Your task to perform on an android device: find which apps use the phone's location Image 0: 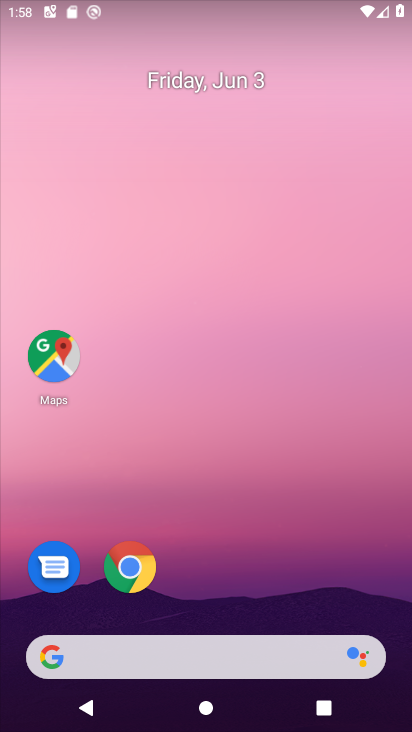
Step 0: drag from (238, 510) to (269, 244)
Your task to perform on an android device: find which apps use the phone's location Image 1: 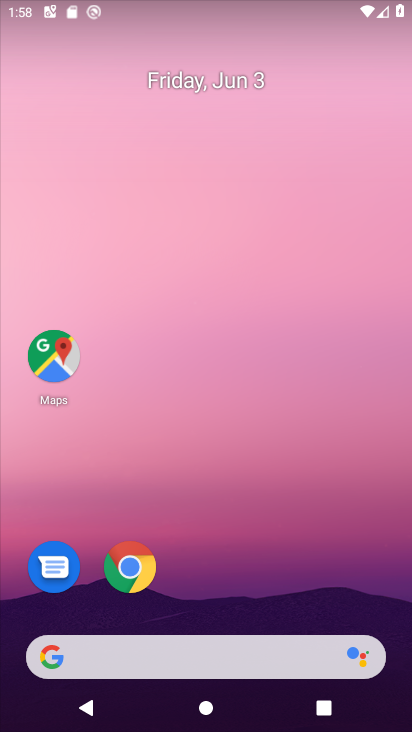
Step 1: drag from (216, 585) to (235, 300)
Your task to perform on an android device: find which apps use the phone's location Image 2: 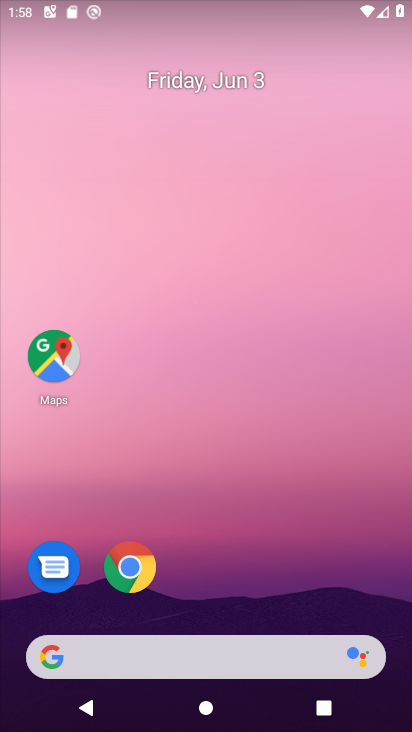
Step 2: drag from (217, 632) to (229, 200)
Your task to perform on an android device: find which apps use the phone's location Image 3: 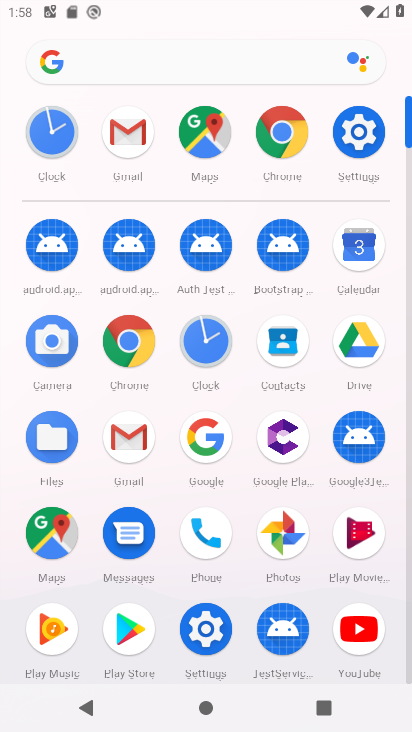
Step 3: click (360, 126)
Your task to perform on an android device: find which apps use the phone's location Image 4: 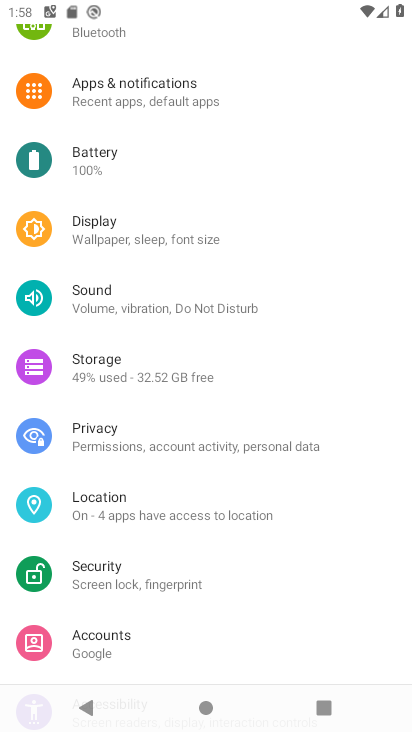
Step 4: click (132, 515)
Your task to perform on an android device: find which apps use the phone's location Image 5: 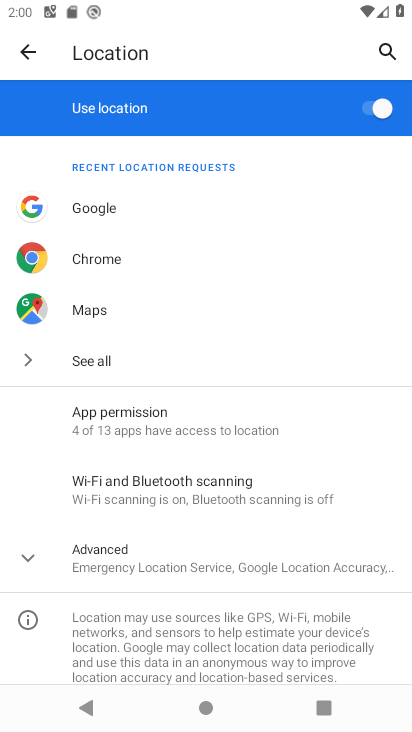
Step 5: task complete